Your task to perform on an android device: see creations saved in the google photos Image 0: 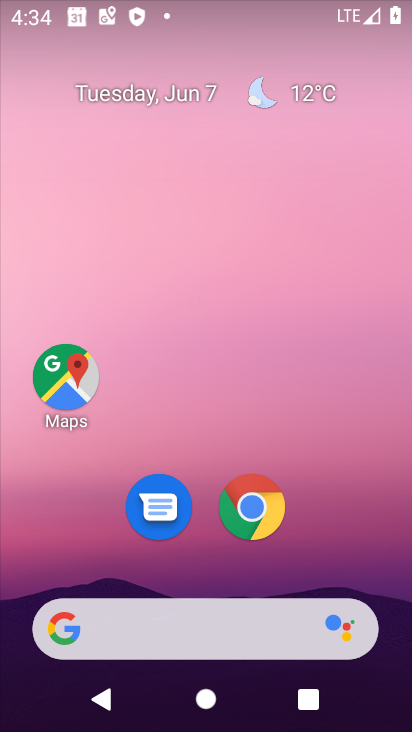
Step 0: drag from (357, 534) to (289, 33)
Your task to perform on an android device: see creations saved in the google photos Image 1: 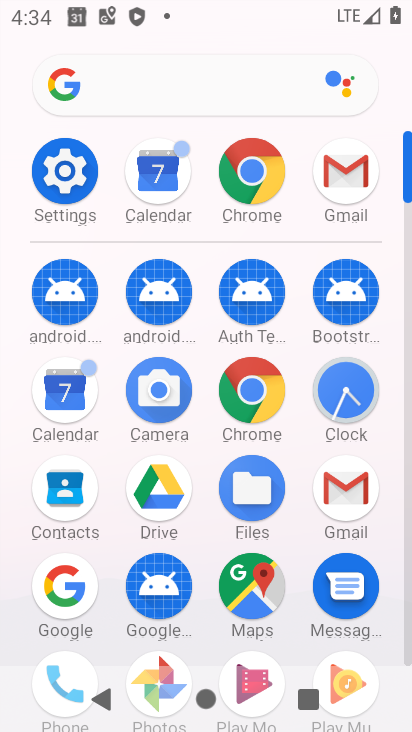
Step 1: drag from (9, 553) to (8, 209)
Your task to perform on an android device: see creations saved in the google photos Image 2: 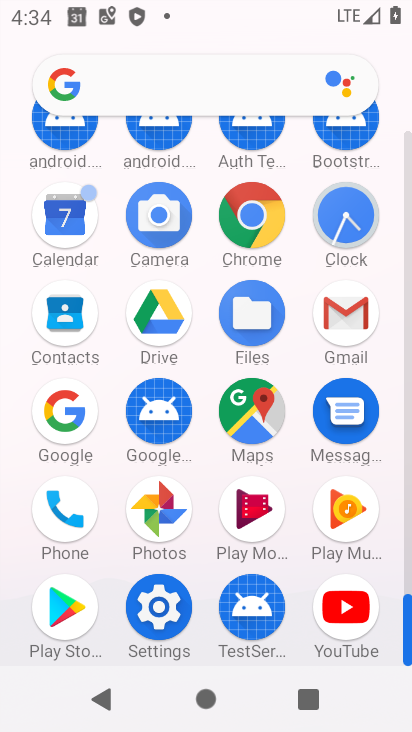
Step 2: click (152, 510)
Your task to perform on an android device: see creations saved in the google photos Image 3: 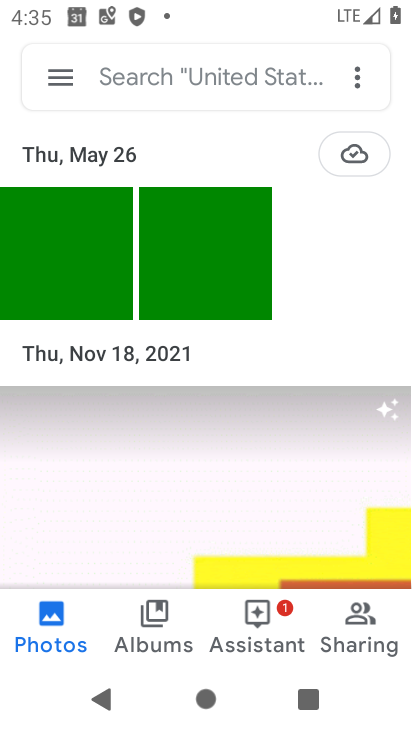
Step 3: task complete